Your task to perform on an android device: open sync settings in chrome Image 0: 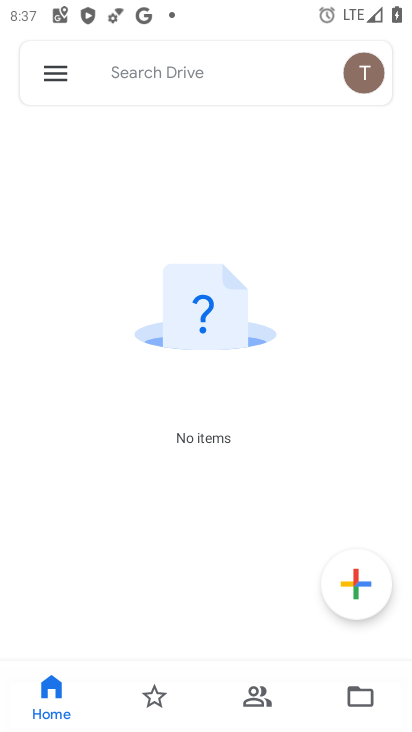
Step 0: press home button
Your task to perform on an android device: open sync settings in chrome Image 1: 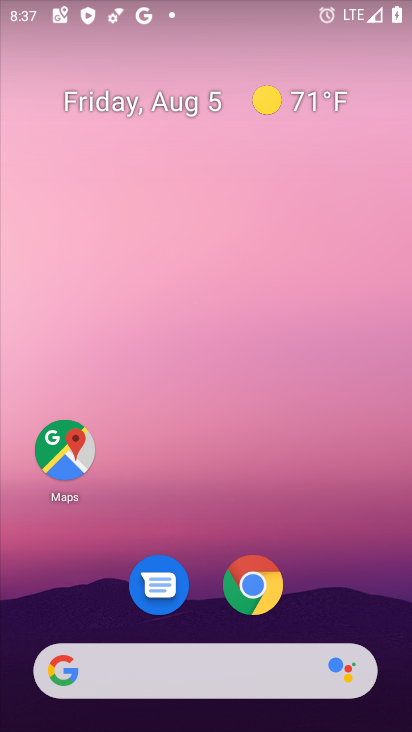
Step 1: click (272, 586)
Your task to perform on an android device: open sync settings in chrome Image 2: 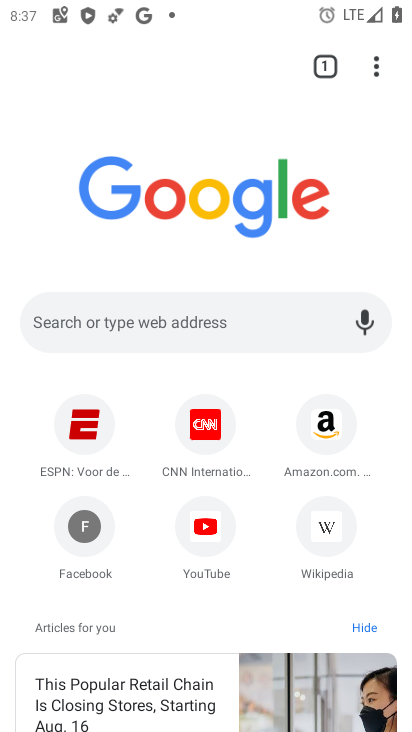
Step 2: click (377, 64)
Your task to perform on an android device: open sync settings in chrome Image 3: 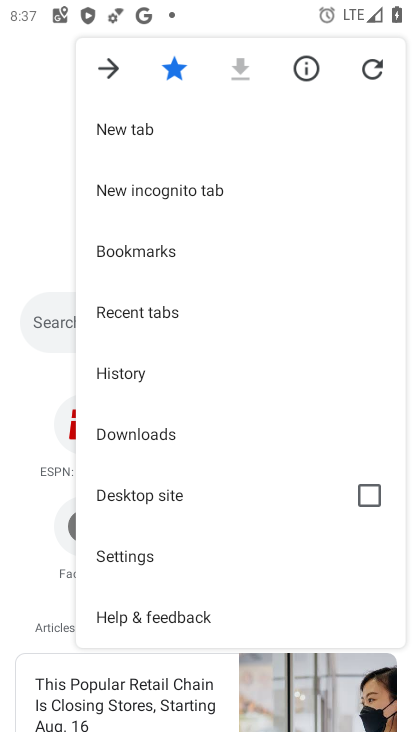
Step 3: click (147, 555)
Your task to perform on an android device: open sync settings in chrome Image 4: 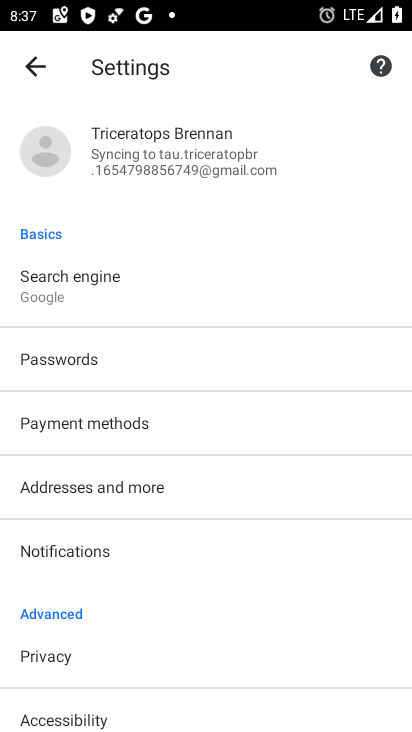
Step 4: click (188, 146)
Your task to perform on an android device: open sync settings in chrome Image 5: 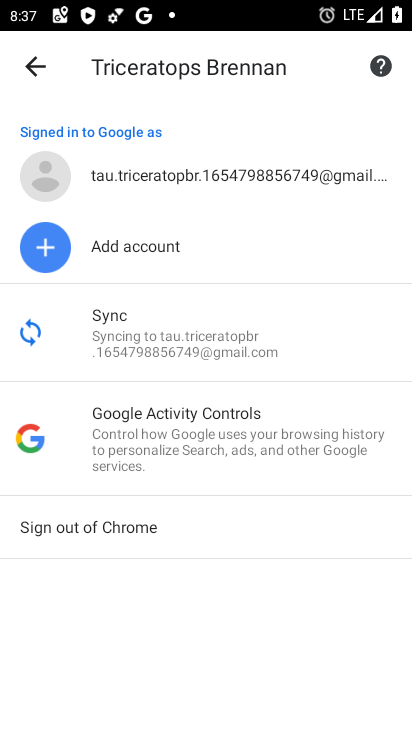
Step 5: click (162, 329)
Your task to perform on an android device: open sync settings in chrome Image 6: 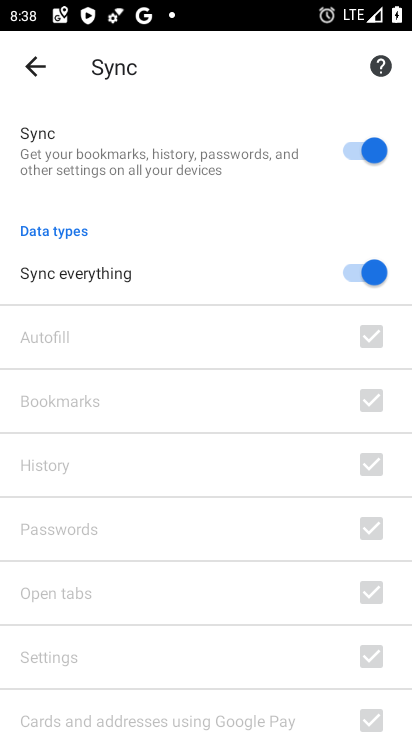
Step 6: task complete